Your task to perform on an android device: turn off smart reply in the gmail app Image 0: 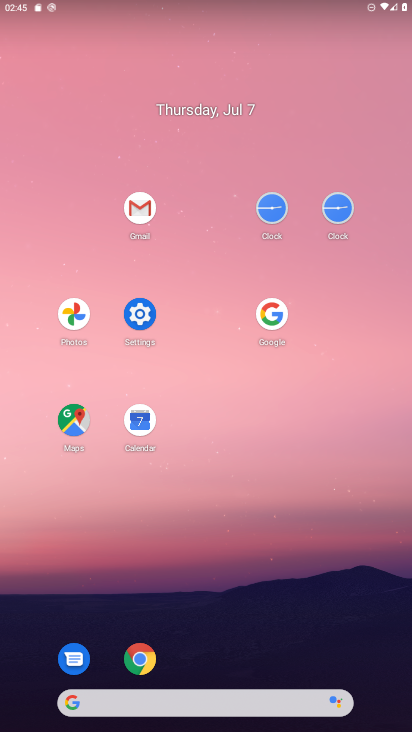
Step 0: click (139, 208)
Your task to perform on an android device: turn off smart reply in the gmail app Image 1: 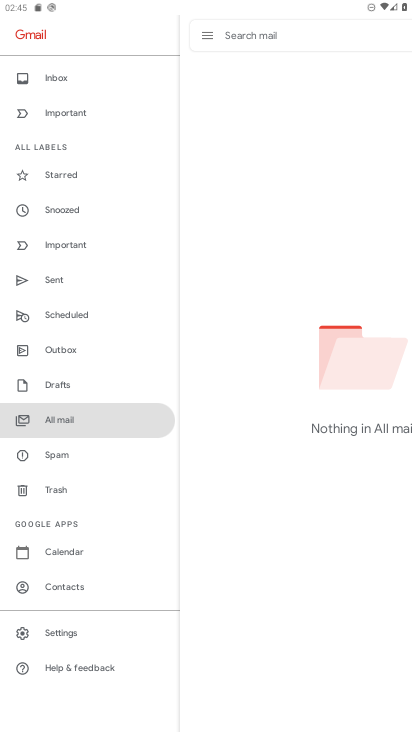
Step 1: click (80, 642)
Your task to perform on an android device: turn off smart reply in the gmail app Image 2: 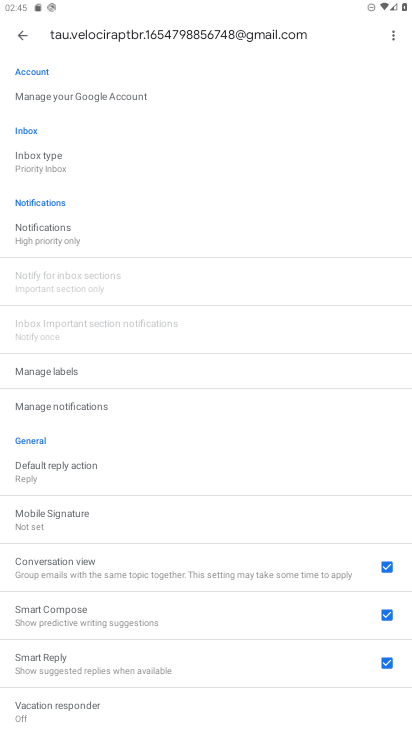
Step 2: click (377, 664)
Your task to perform on an android device: turn off smart reply in the gmail app Image 3: 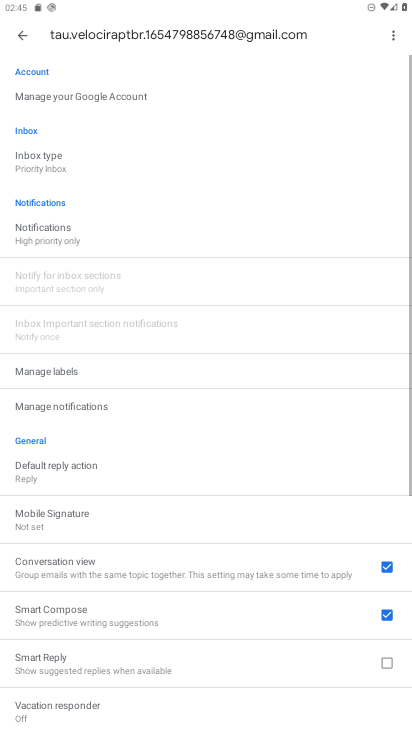
Step 3: task complete